Your task to perform on an android device: Go to calendar. Show me events next week Image 0: 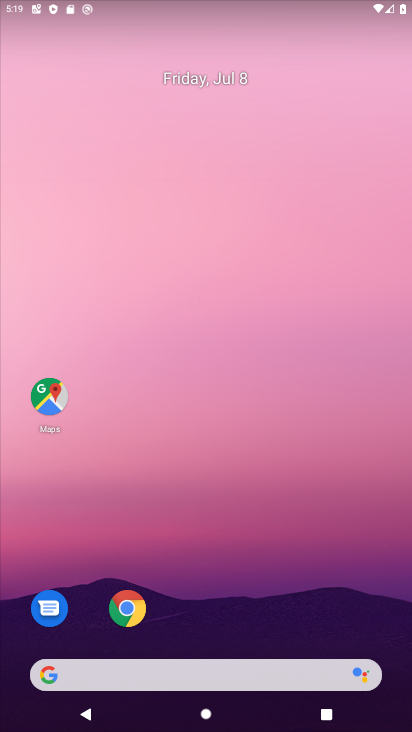
Step 0: drag from (182, 663) to (345, 90)
Your task to perform on an android device: Go to calendar. Show me events next week Image 1: 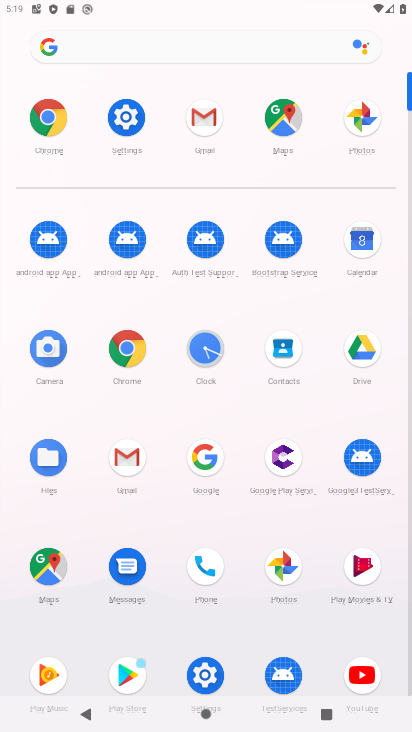
Step 1: click (360, 242)
Your task to perform on an android device: Go to calendar. Show me events next week Image 2: 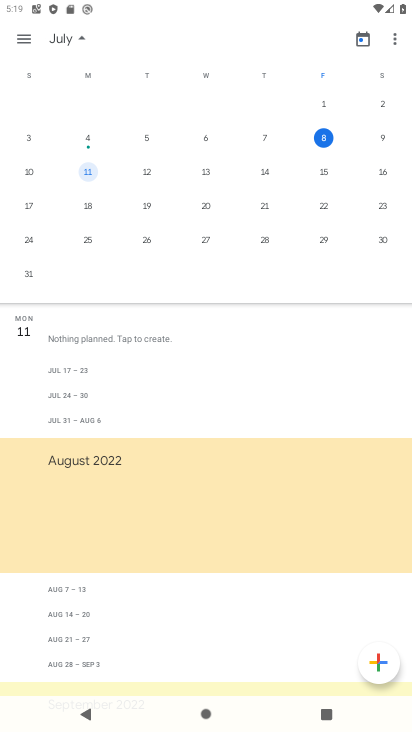
Step 2: click (200, 170)
Your task to perform on an android device: Go to calendar. Show me events next week Image 3: 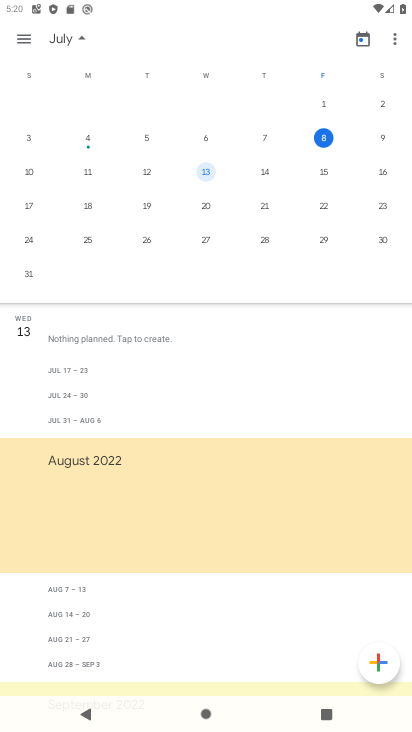
Step 3: click (20, 37)
Your task to perform on an android device: Go to calendar. Show me events next week Image 4: 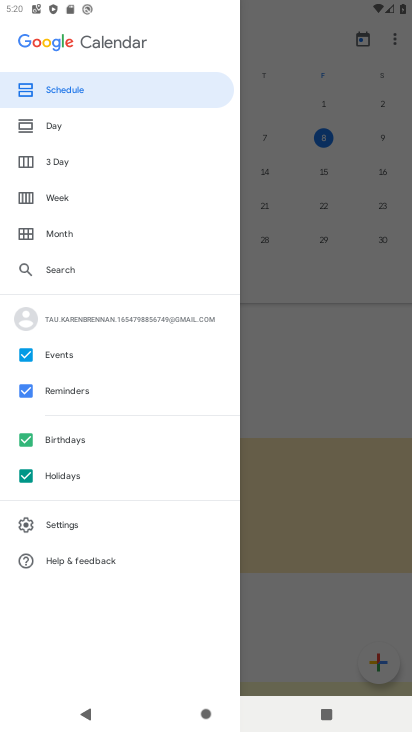
Step 4: click (65, 203)
Your task to perform on an android device: Go to calendar. Show me events next week Image 5: 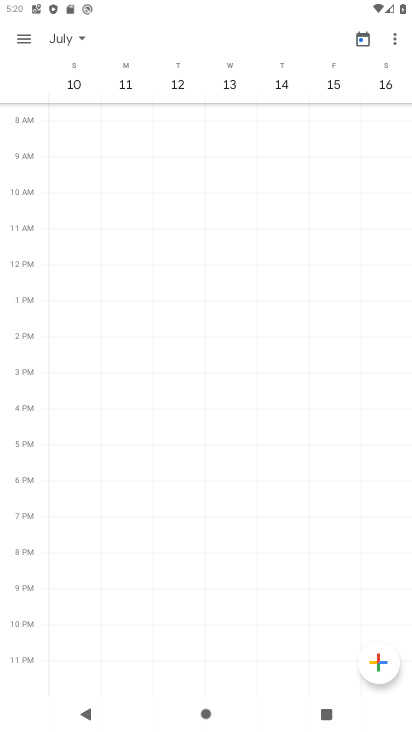
Step 5: task complete